Your task to perform on an android device: change your default location settings in chrome Image 0: 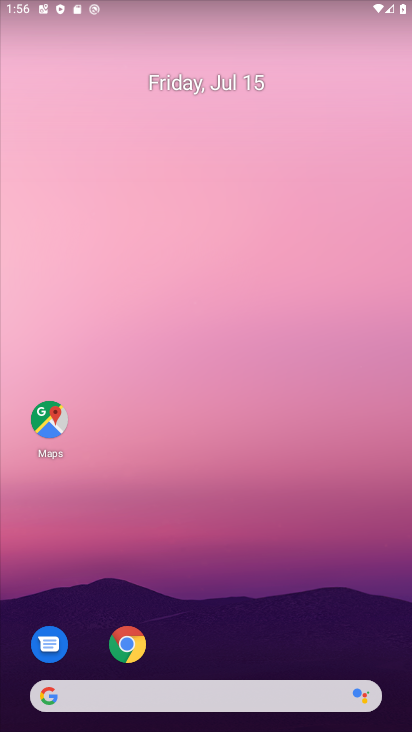
Step 0: click (120, 642)
Your task to perform on an android device: change your default location settings in chrome Image 1: 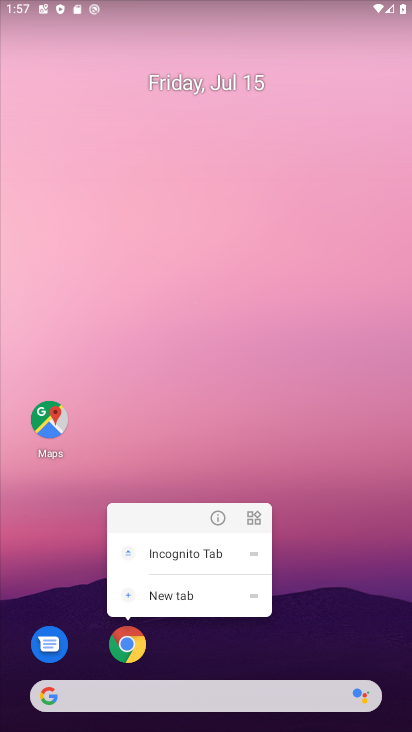
Step 1: click (121, 649)
Your task to perform on an android device: change your default location settings in chrome Image 2: 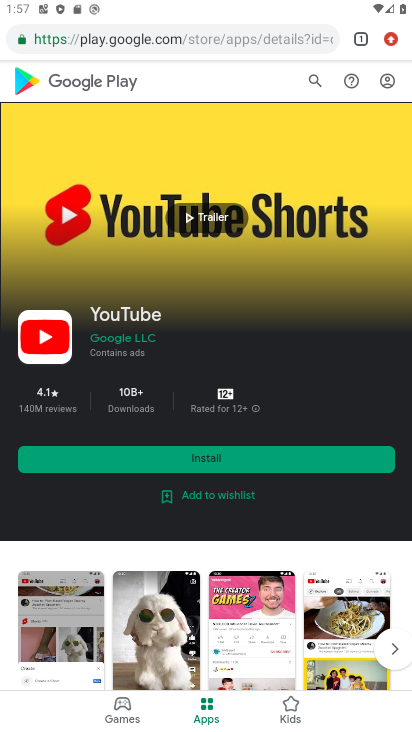
Step 2: click (387, 41)
Your task to perform on an android device: change your default location settings in chrome Image 3: 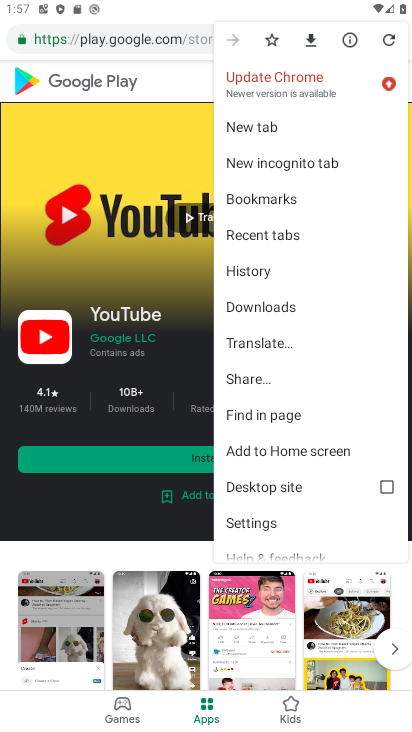
Step 3: click (231, 526)
Your task to perform on an android device: change your default location settings in chrome Image 4: 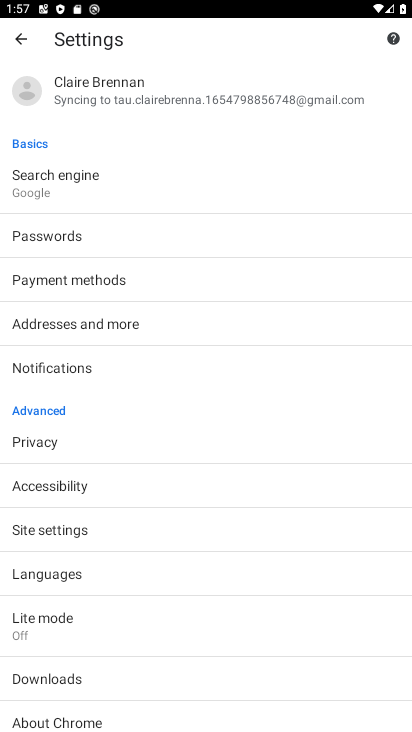
Step 4: click (70, 529)
Your task to perform on an android device: change your default location settings in chrome Image 5: 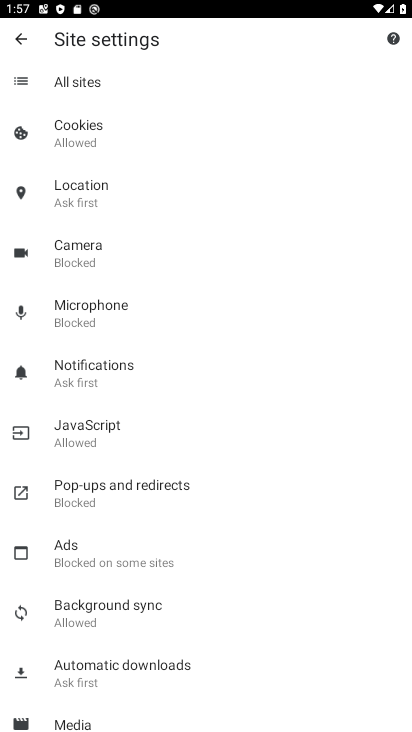
Step 5: click (97, 194)
Your task to perform on an android device: change your default location settings in chrome Image 6: 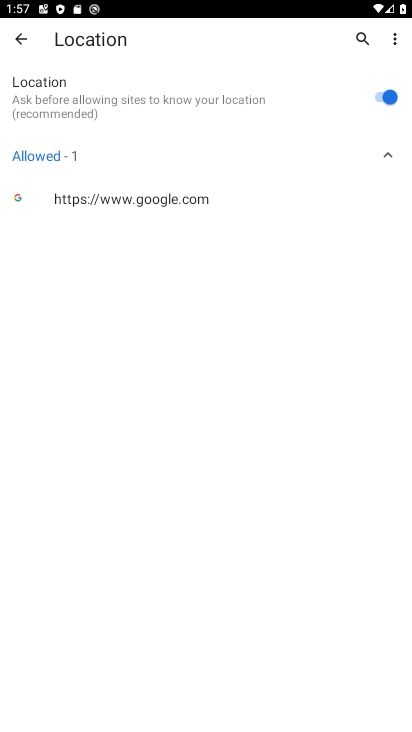
Step 6: click (378, 95)
Your task to perform on an android device: change your default location settings in chrome Image 7: 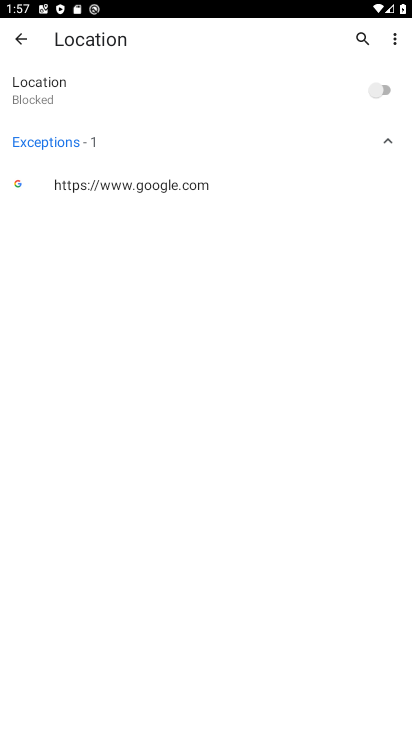
Step 7: task complete